Your task to perform on an android device: turn off location Image 0: 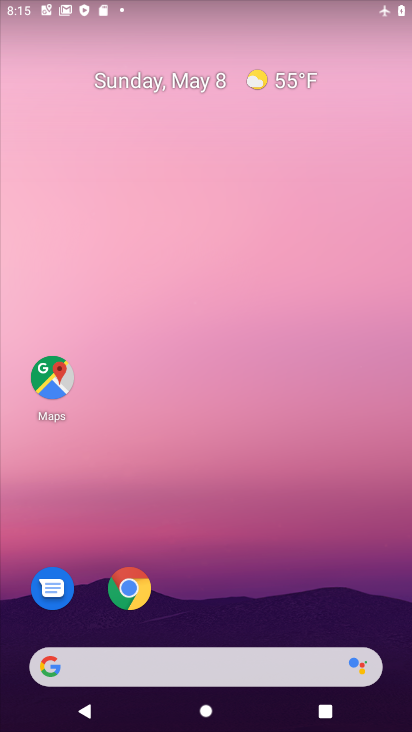
Step 0: drag from (306, 620) to (272, 4)
Your task to perform on an android device: turn off location Image 1: 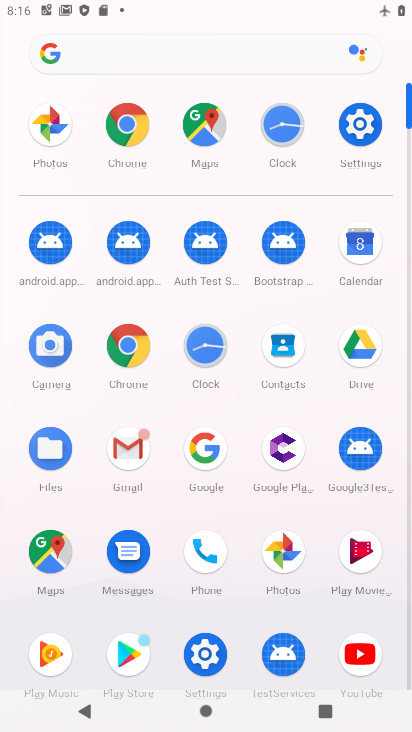
Step 1: click (350, 135)
Your task to perform on an android device: turn off location Image 2: 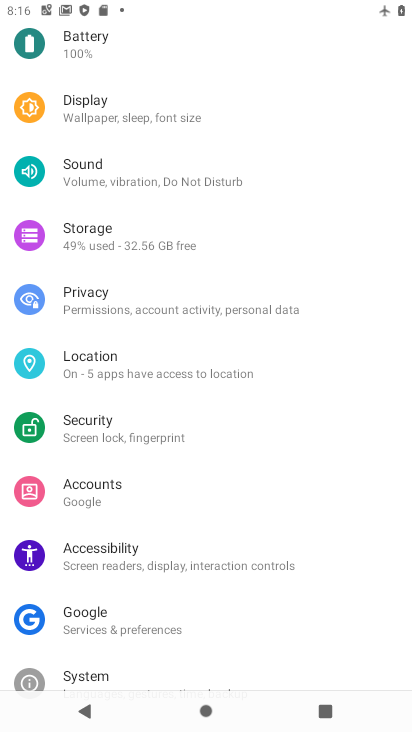
Step 2: click (162, 362)
Your task to perform on an android device: turn off location Image 3: 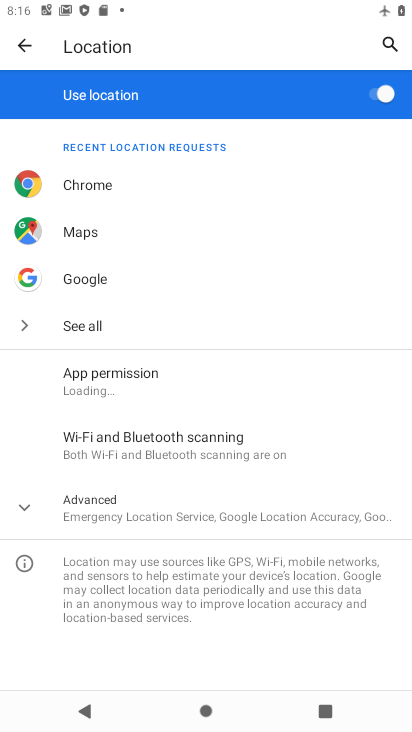
Step 3: click (348, 94)
Your task to perform on an android device: turn off location Image 4: 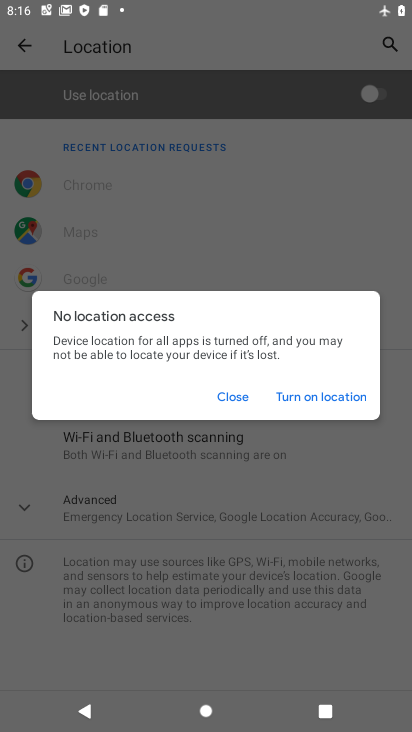
Step 4: task complete